Your task to perform on an android device: Open location settings Image 0: 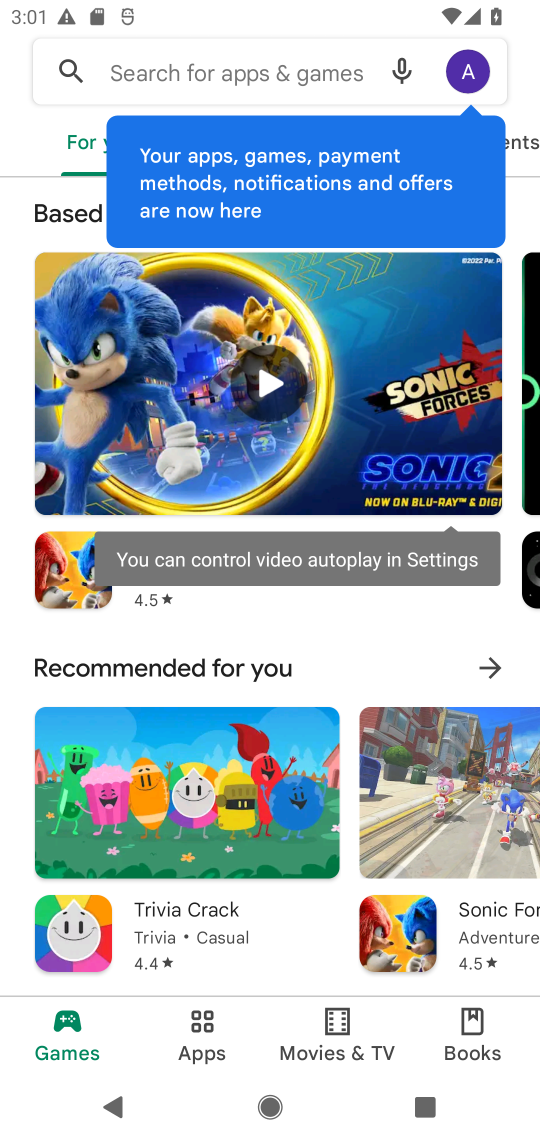
Step 0: press home button
Your task to perform on an android device: Open location settings Image 1: 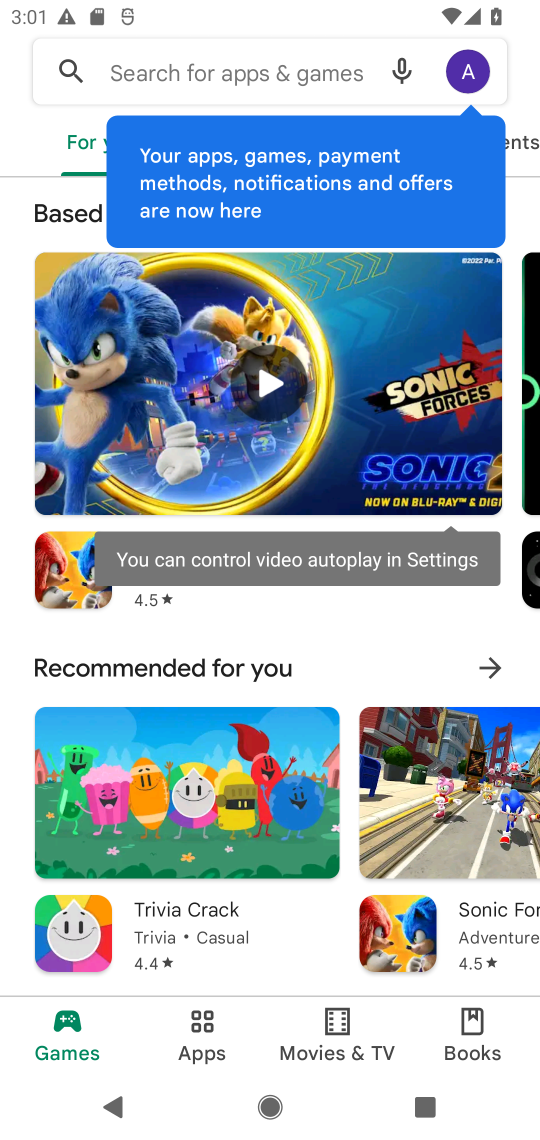
Step 1: press home button
Your task to perform on an android device: Open location settings Image 2: 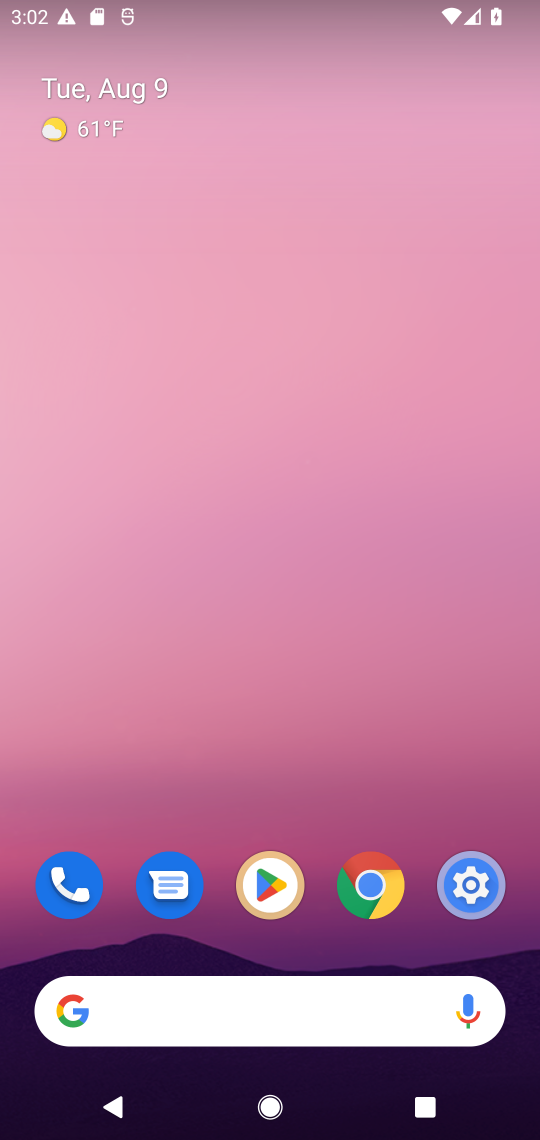
Step 2: click (469, 889)
Your task to perform on an android device: Open location settings Image 3: 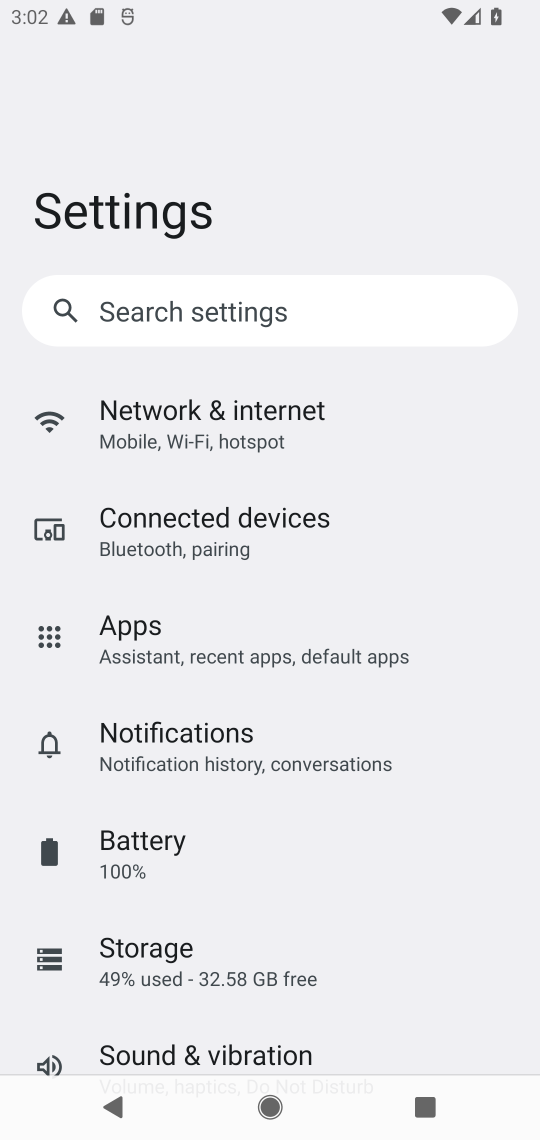
Step 3: drag from (250, 953) to (289, 463)
Your task to perform on an android device: Open location settings Image 4: 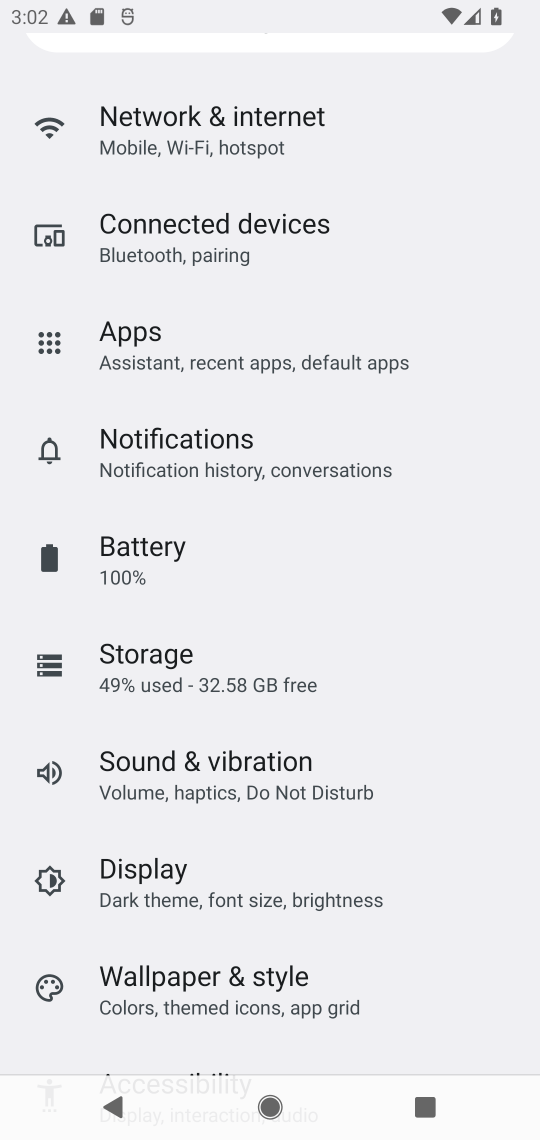
Step 4: drag from (241, 818) to (314, 309)
Your task to perform on an android device: Open location settings Image 5: 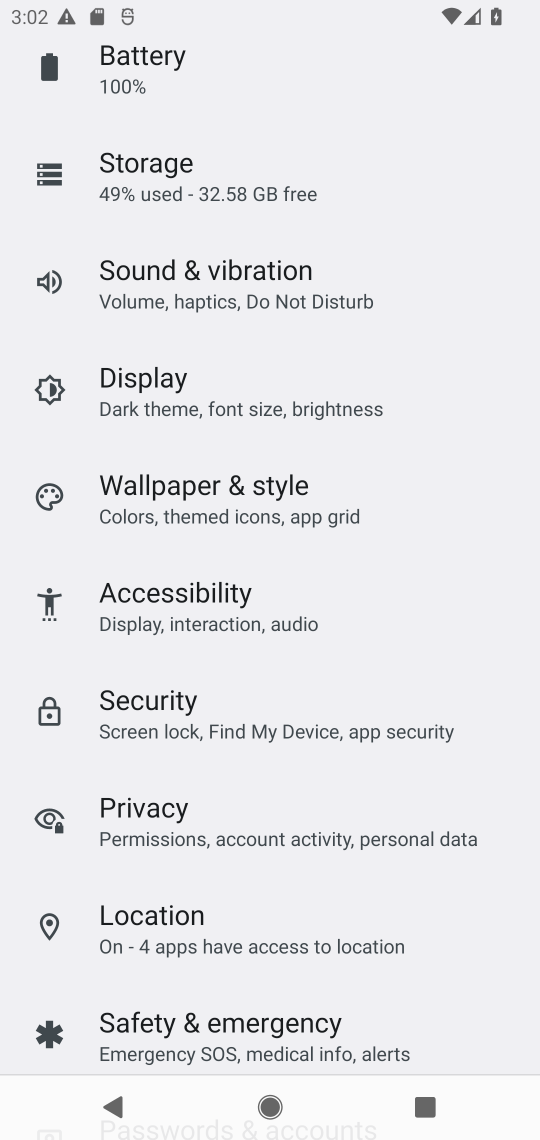
Step 5: click (174, 904)
Your task to perform on an android device: Open location settings Image 6: 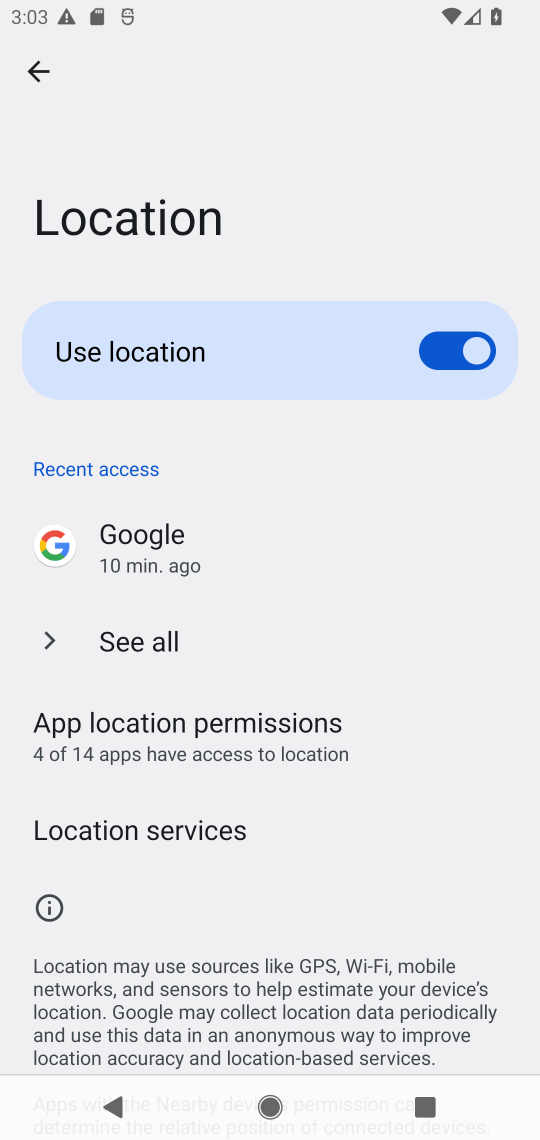
Step 6: task complete